Your task to perform on an android device: search for starred emails in the gmail app Image 0: 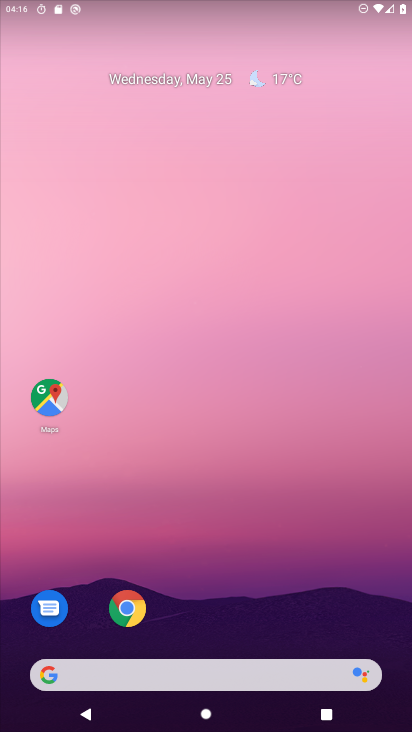
Step 0: drag from (251, 603) to (262, 162)
Your task to perform on an android device: search for starred emails in the gmail app Image 1: 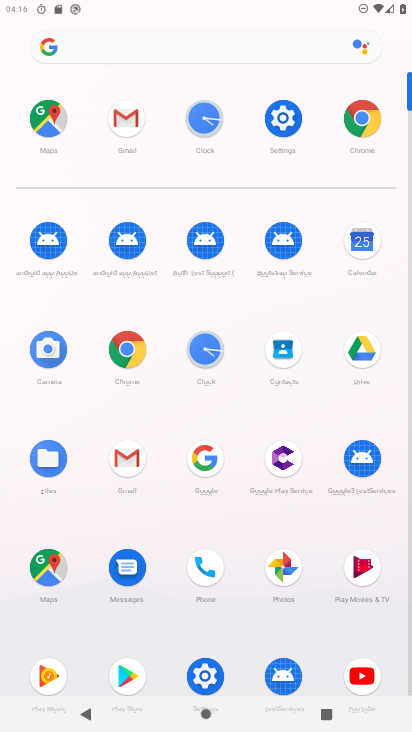
Step 1: click (111, 111)
Your task to perform on an android device: search for starred emails in the gmail app Image 2: 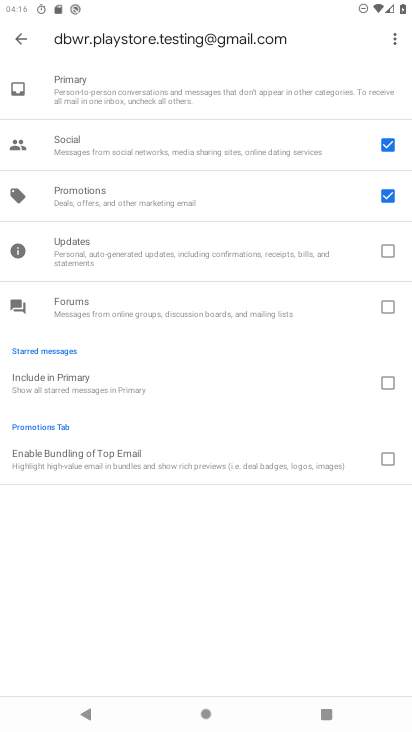
Step 2: click (19, 42)
Your task to perform on an android device: search for starred emails in the gmail app Image 3: 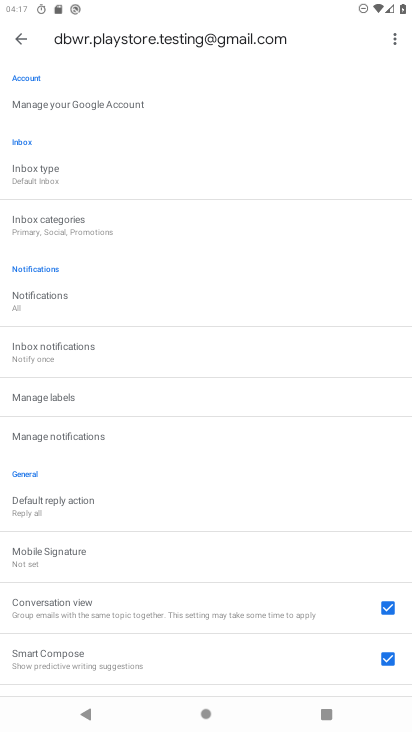
Step 3: click (26, 45)
Your task to perform on an android device: search for starred emails in the gmail app Image 4: 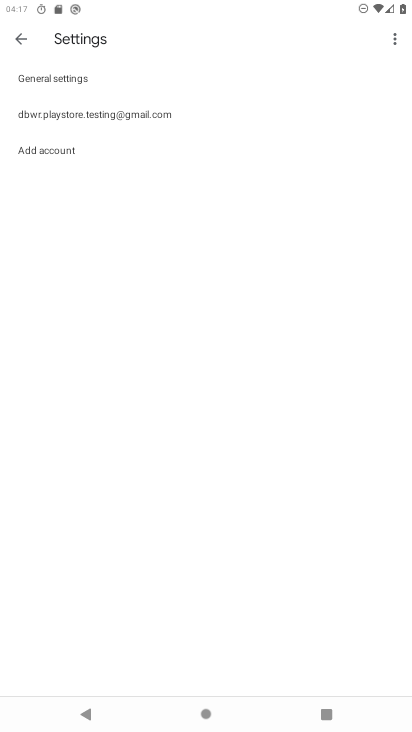
Step 4: click (13, 38)
Your task to perform on an android device: search for starred emails in the gmail app Image 5: 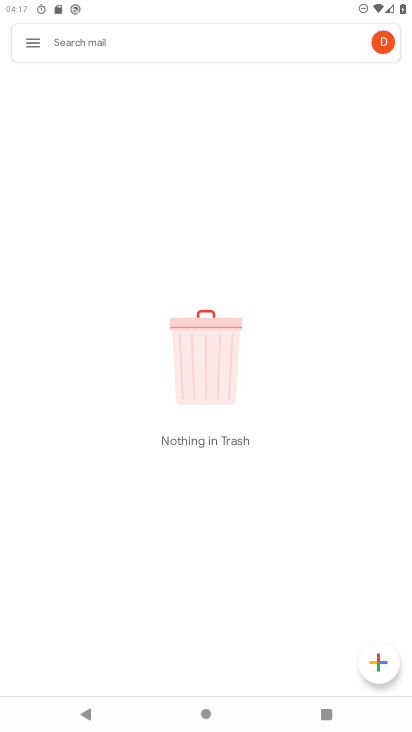
Step 5: click (29, 41)
Your task to perform on an android device: search for starred emails in the gmail app Image 6: 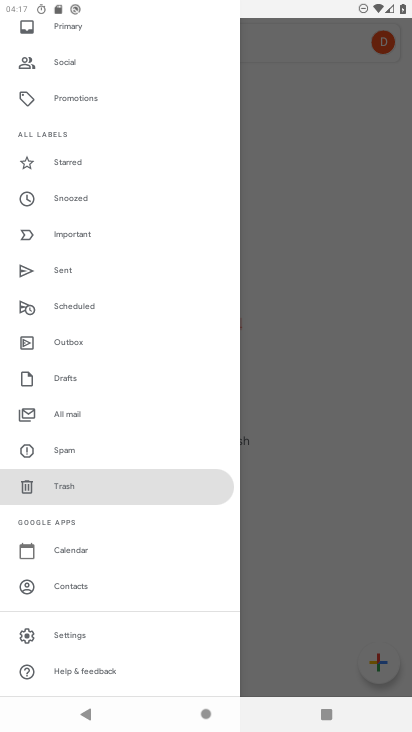
Step 6: click (84, 169)
Your task to perform on an android device: search for starred emails in the gmail app Image 7: 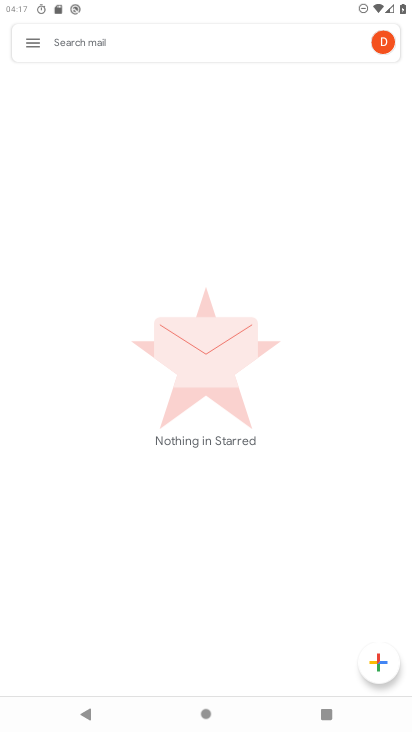
Step 7: task complete